Your task to perform on an android device: Play the last video I watched on Youtube Image 0: 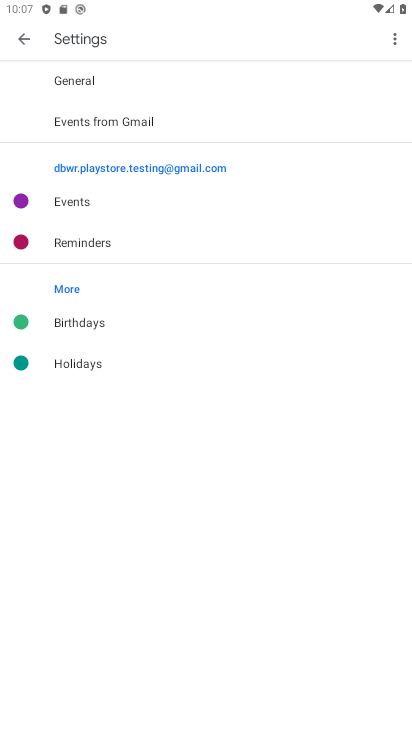
Step 0: press home button
Your task to perform on an android device: Play the last video I watched on Youtube Image 1: 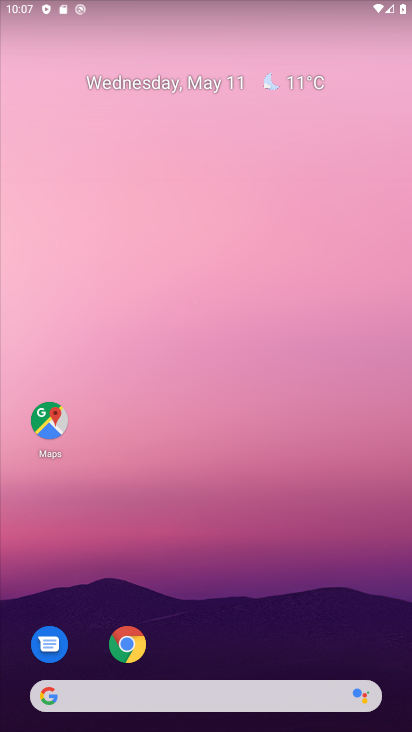
Step 1: drag from (347, 637) to (312, 6)
Your task to perform on an android device: Play the last video I watched on Youtube Image 2: 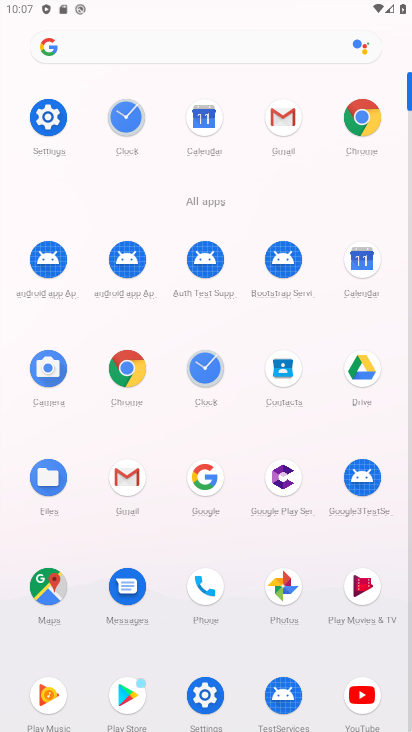
Step 2: click (363, 702)
Your task to perform on an android device: Play the last video I watched on Youtube Image 3: 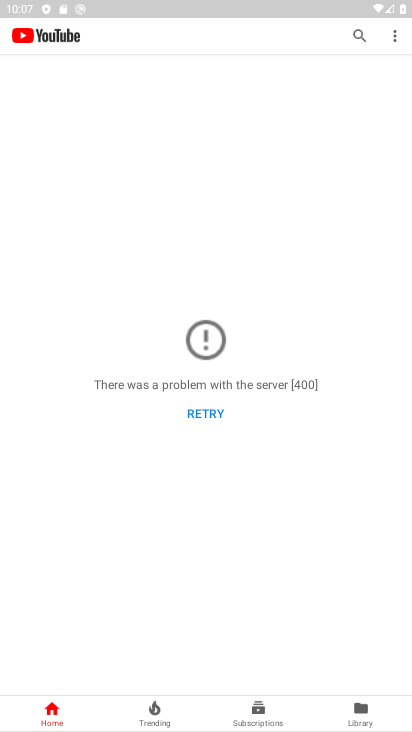
Step 3: click (356, 721)
Your task to perform on an android device: Play the last video I watched on Youtube Image 4: 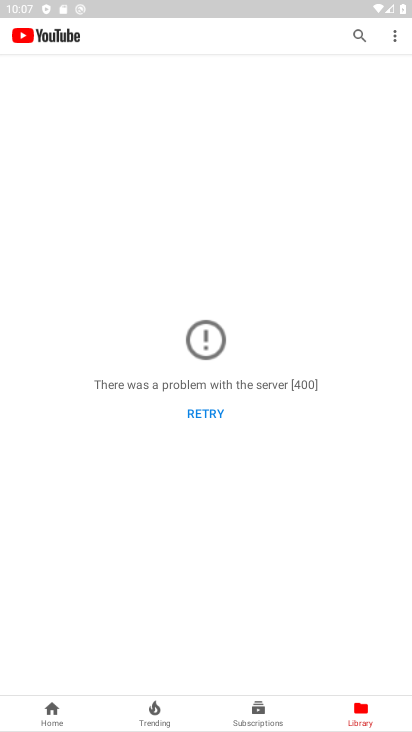
Step 4: task complete